Your task to perform on an android device: turn notification dots off Image 0: 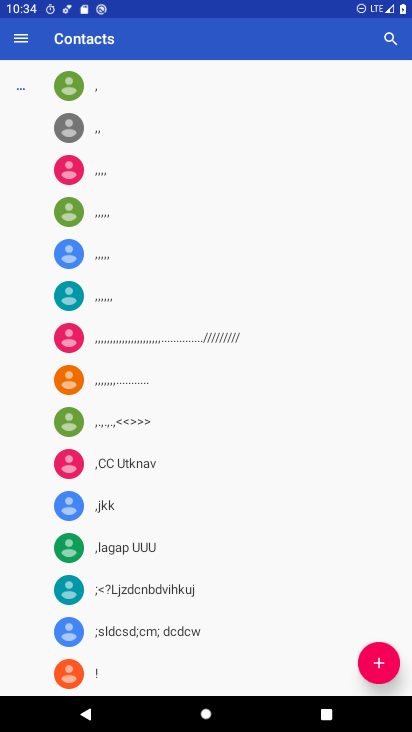
Step 0: press home button
Your task to perform on an android device: turn notification dots off Image 1: 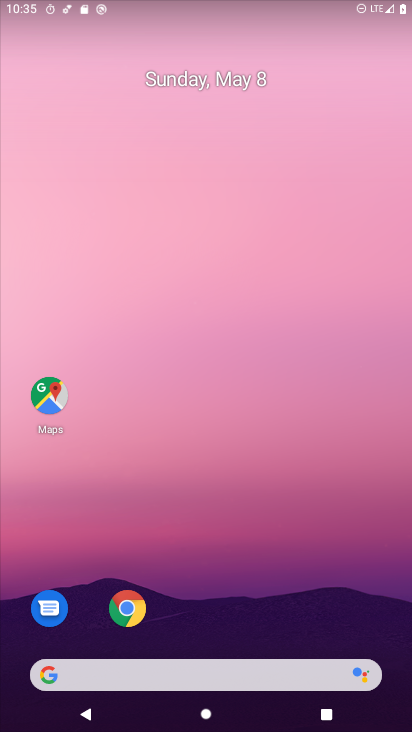
Step 1: drag from (170, 629) to (216, 214)
Your task to perform on an android device: turn notification dots off Image 2: 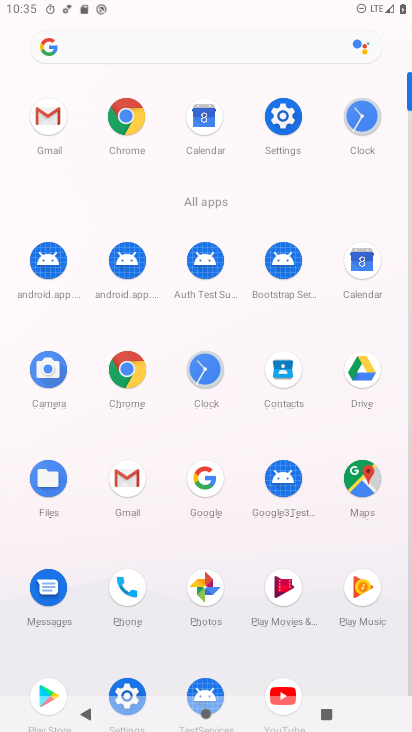
Step 2: click (280, 168)
Your task to perform on an android device: turn notification dots off Image 3: 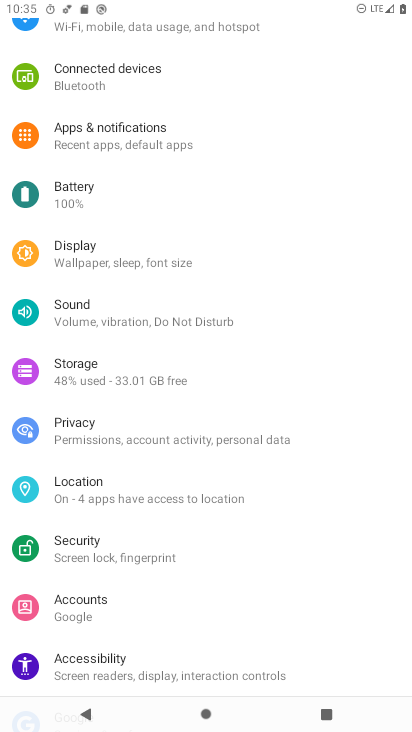
Step 3: click (144, 135)
Your task to perform on an android device: turn notification dots off Image 4: 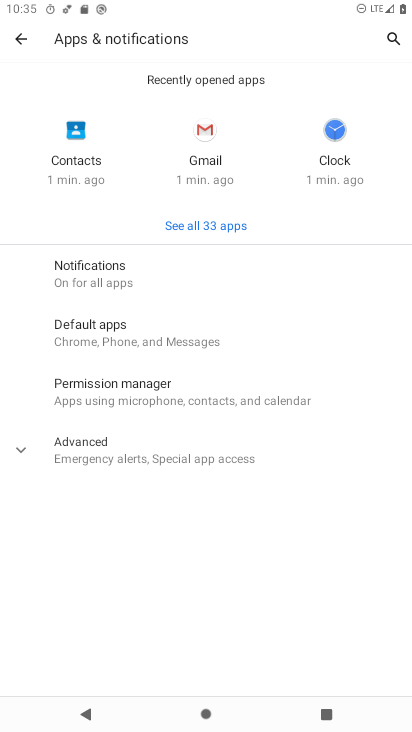
Step 4: click (167, 285)
Your task to perform on an android device: turn notification dots off Image 5: 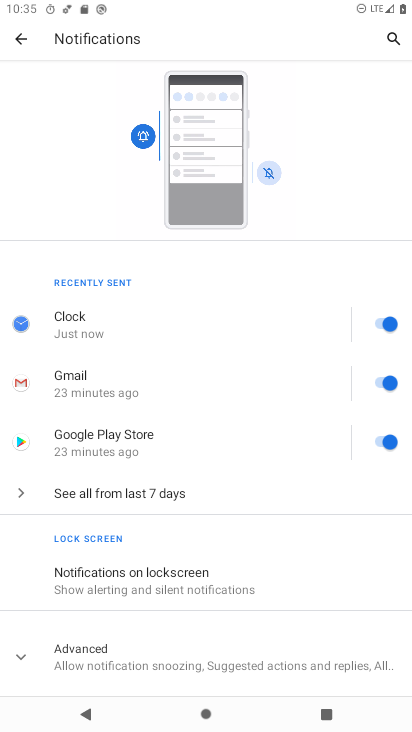
Step 5: click (135, 582)
Your task to perform on an android device: turn notification dots off Image 6: 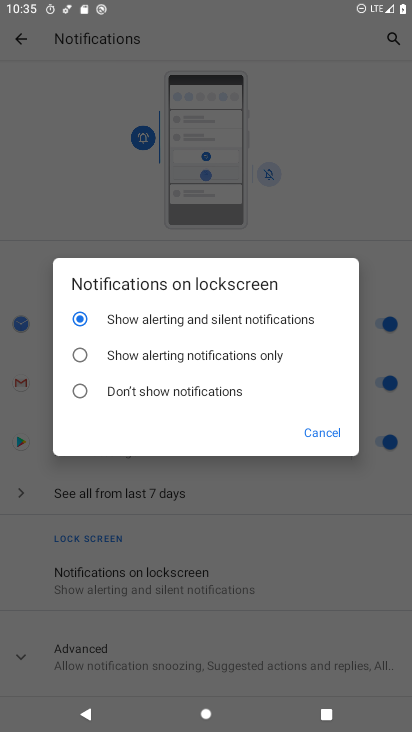
Step 6: click (337, 473)
Your task to perform on an android device: turn notification dots off Image 7: 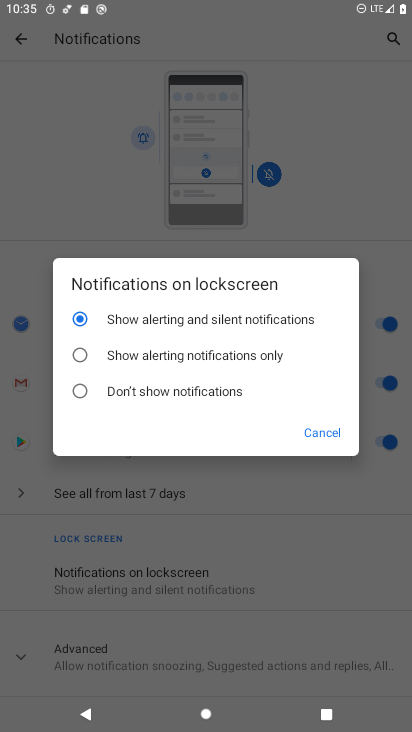
Step 7: click (317, 430)
Your task to perform on an android device: turn notification dots off Image 8: 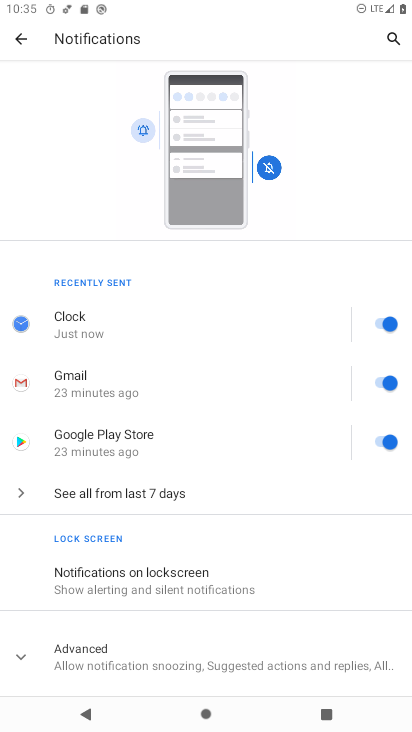
Step 8: click (27, 651)
Your task to perform on an android device: turn notification dots off Image 9: 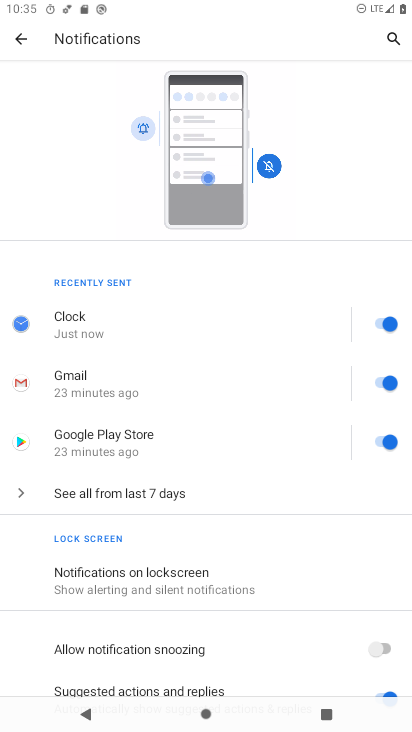
Step 9: drag from (121, 653) to (187, 303)
Your task to perform on an android device: turn notification dots off Image 10: 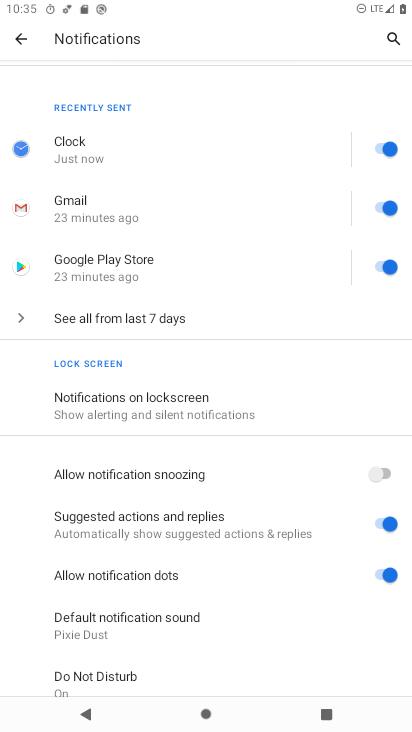
Step 10: click (381, 574)
Your task to perform on an android device: turn notification dots off Image 11: 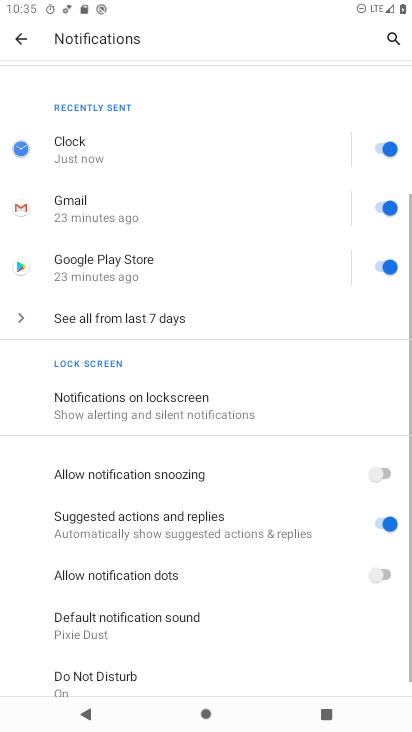
Step 11: task complete